Your task to perform on an android device: see sites visited before in the chrome app Image 0: 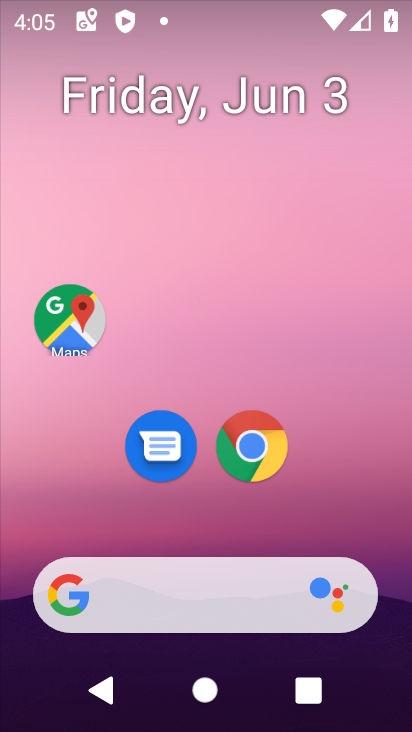
Step 0: task complete